Your task to perform on an android device: turn off smart reply in the gmail app Image 0: 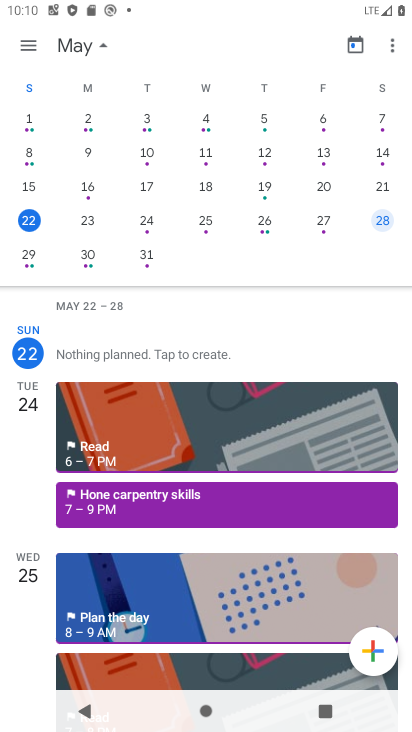
Step 0: press home button
Your task to perform on an android device: turn off smart reply in the gmail app Image 1: 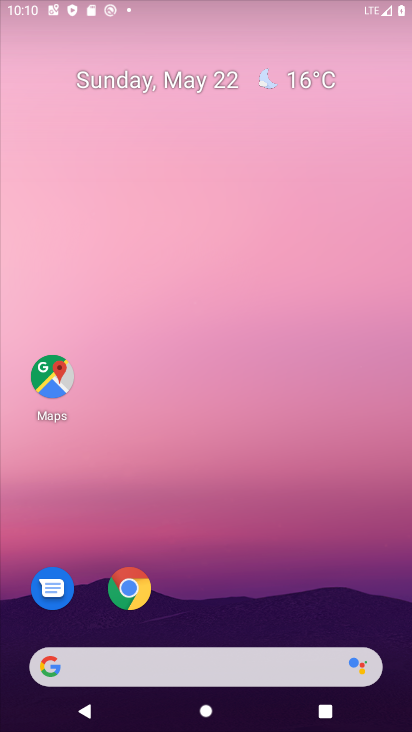
Step 1: drag from (220, 581) to (211, 13)
Your task to perform on an android device: turn off smart reply in the gmail app Image 2: 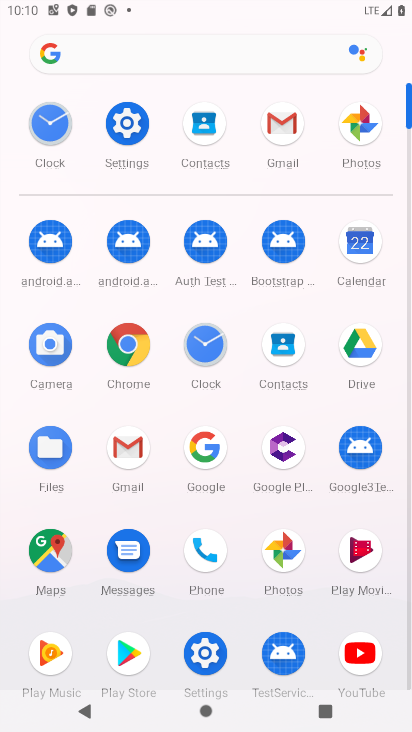
Step 2: click (142, 448)
Your task to perform on an android device: turn off smart reply in the gmail app Image 3: 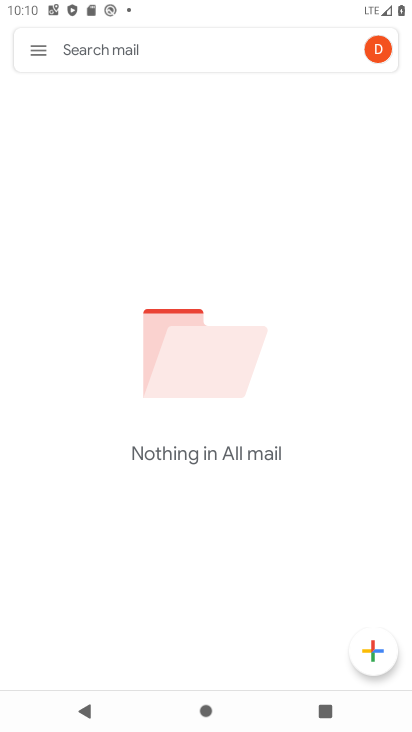
Step 3: click (29, 46)
Your task to perform on an android device: turn off smart reply in the gmail app Image 4: 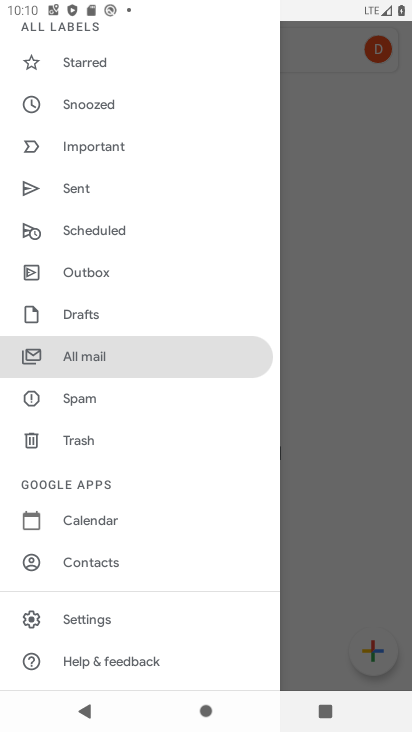
Step 4: click (141, 608)
Your task to perform on an android device: turn off smart reply in the gmail app Image 5: 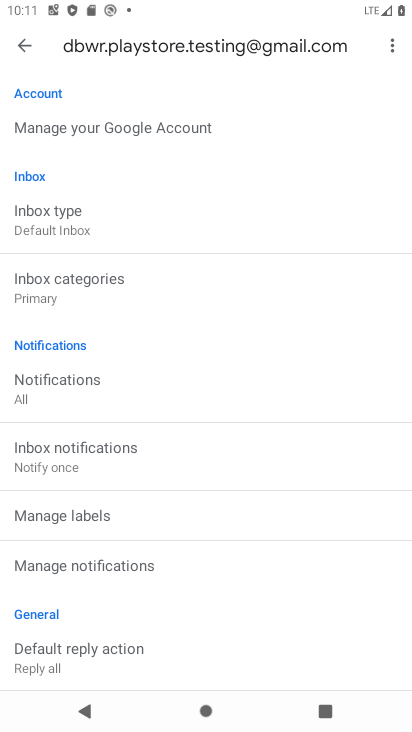
Step 5: drag from (169, 520) to (160, 255)
Your task to perform on an android device: turn off smart reply in the gmail app Image 6: 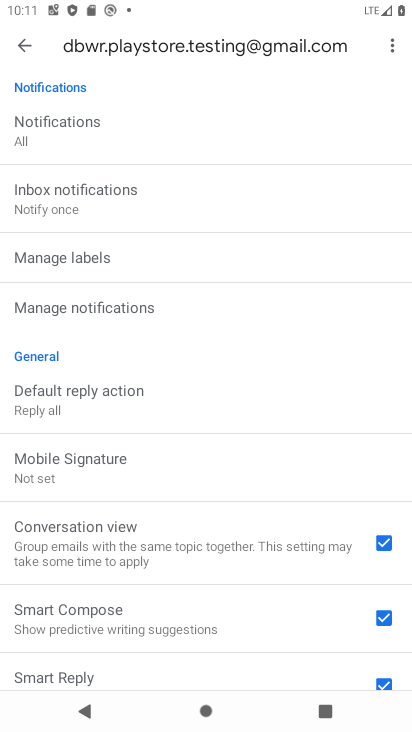
Step 6: drag from (189, 551) to (207, 240)
Your task to perform on an android device: turn off smart reply in the gmail app Image 7: 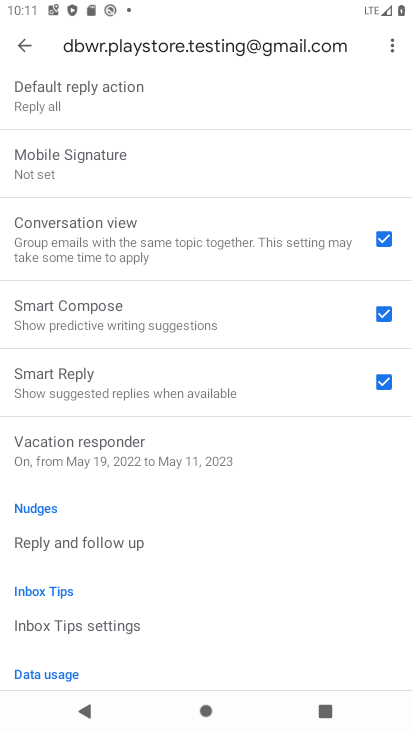
Step 7: click (390, 378)
Your task to perform on an android device: turn off smart reply in the gmail app Image 8: 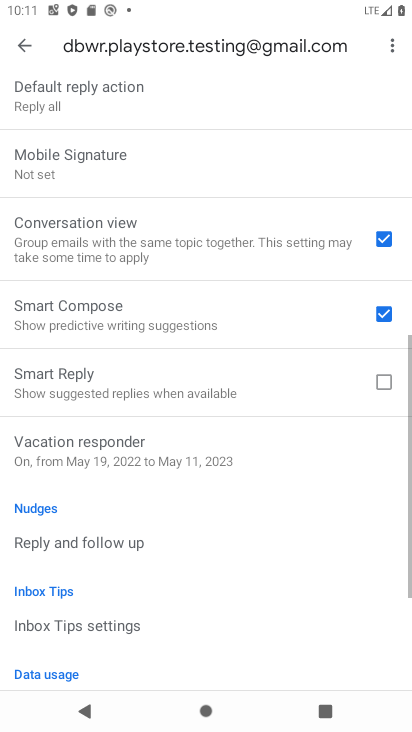
Step 8: task complete